Your task to perform on an android device: Open my contact list Image 0: 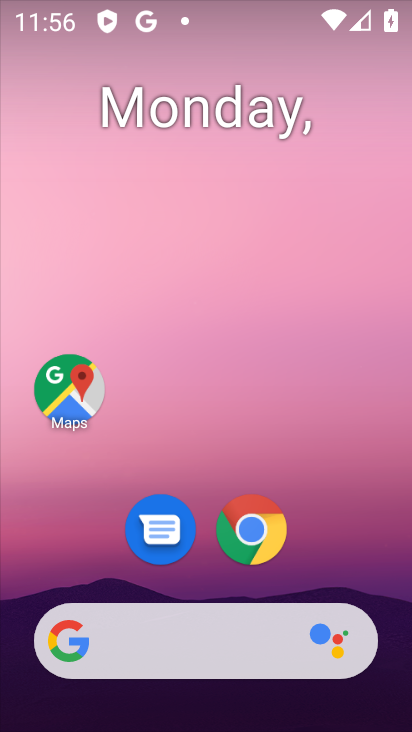
Step 0: drag from (219, 726) to (195, 173)
Your task to perform on an android device: Open my contact list Image 1: 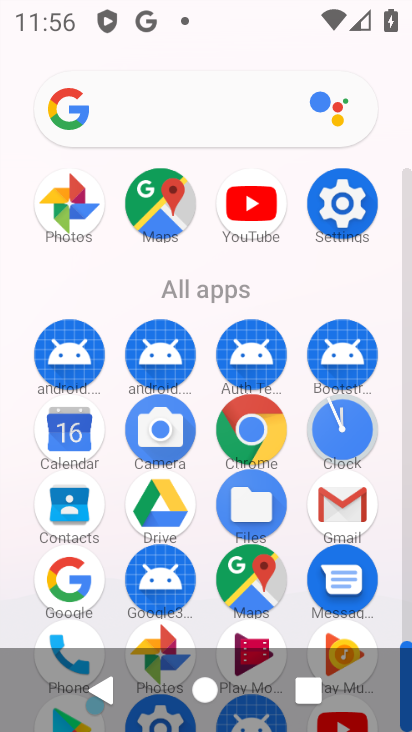
Step 1: drag from (206, 588) to (207, 181)
Your task to perform on an android device: Open my contact list Image 2: 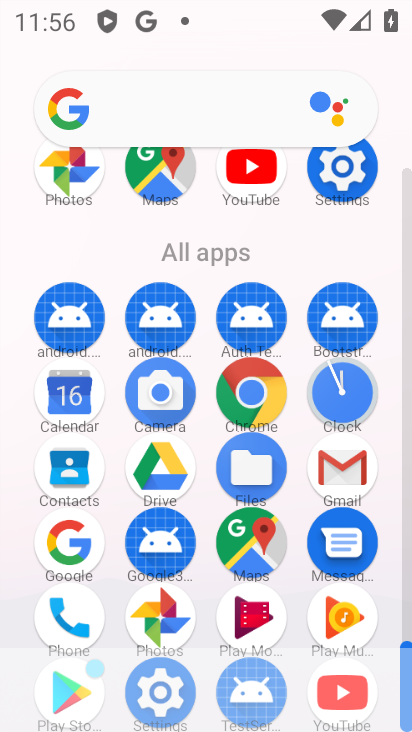
Step 2: click (79, 483)
Your task to perform on an android device: Open my contact list Image 3: 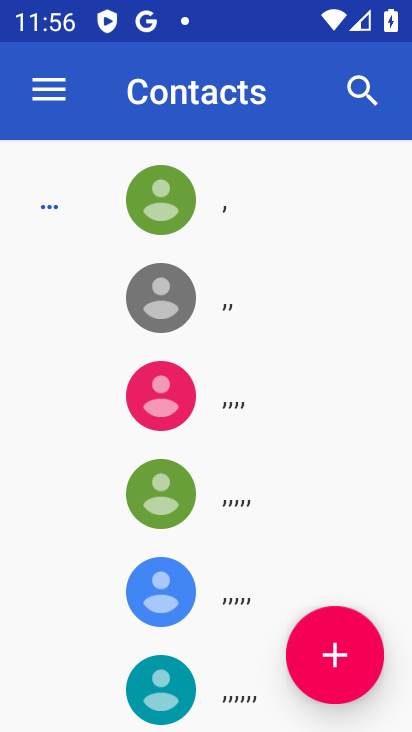
Step 3: task complete